Your task to perform on an android device: turn pop-ups off in chrome Image 0: 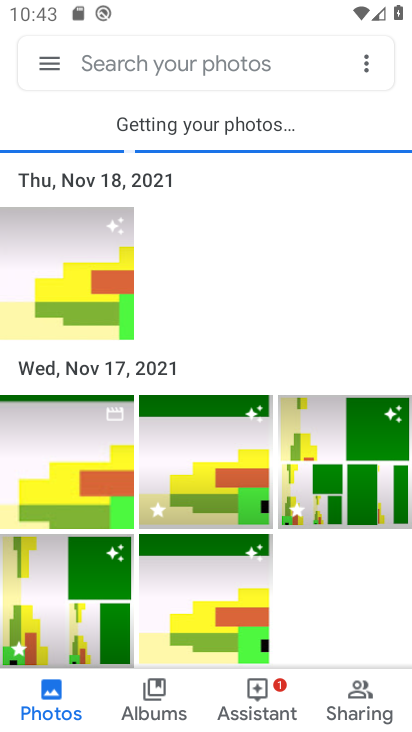
Step 0: press home button
Your task to perform on an android device: turn pop-ups off in chrome Image 1: 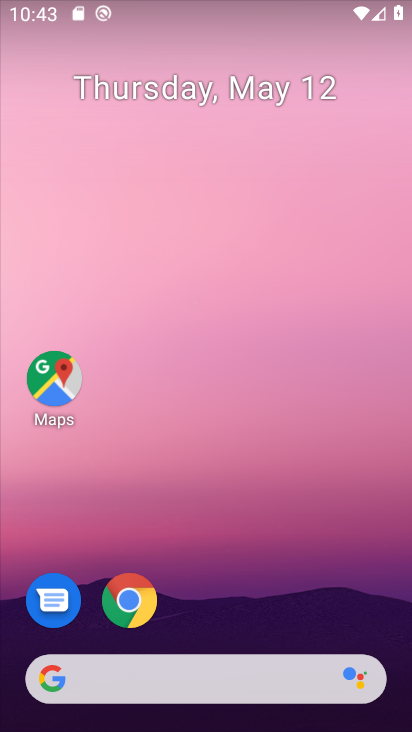
Step 1: click (135, 608)
Your task to perform on an android device: turn pop-ups off in chrome Image 2: 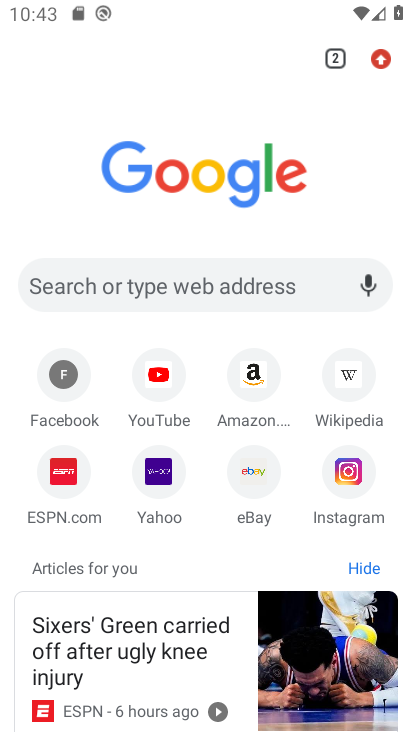
Step 2: drag from (372, 186) to (367, 279)
Your task to perform on an android device: turn pop-ups off in chrome Image 3: 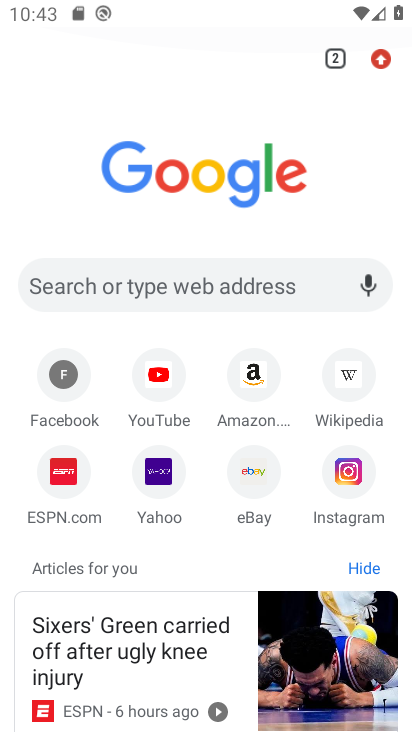
Step 3: drag from (367, 282) to (347, 386)
Your task to perform on an android device: turn pop-ups off in chrome Image 4: 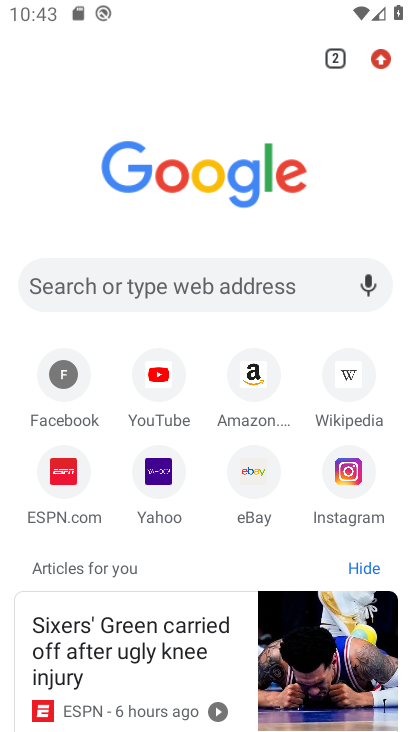
Step 4: click (384, 66)
Your task to perform on an android device: turn pop-ups off in chrome Image 5: 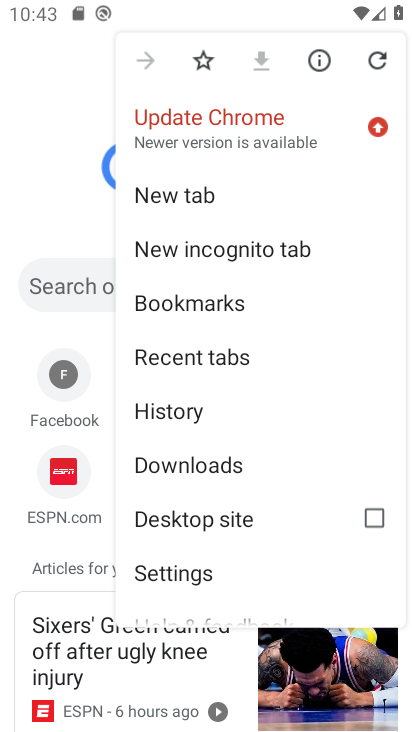
Step 5: drag from (251, 525) to (234, 167)
Your task to perform on an android device: turn pop-ups off in chrome Image 6: 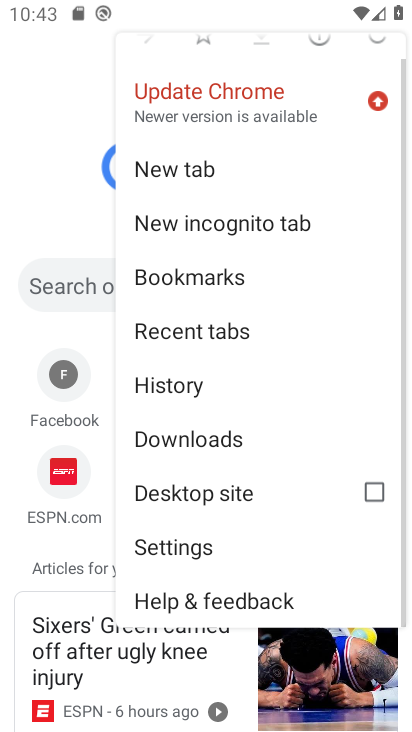
Step 6: click (187, 544)
Your task to perform on an android device: turn pop-ups off in chrome Image 7: 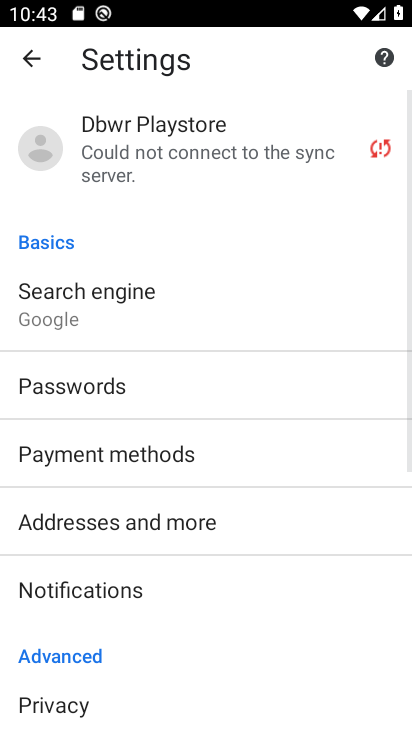
Step 7: drag from (162, 673) to (186, 260)
Your task to perform on an android device: turn pop-ups off in chrome Image 8: 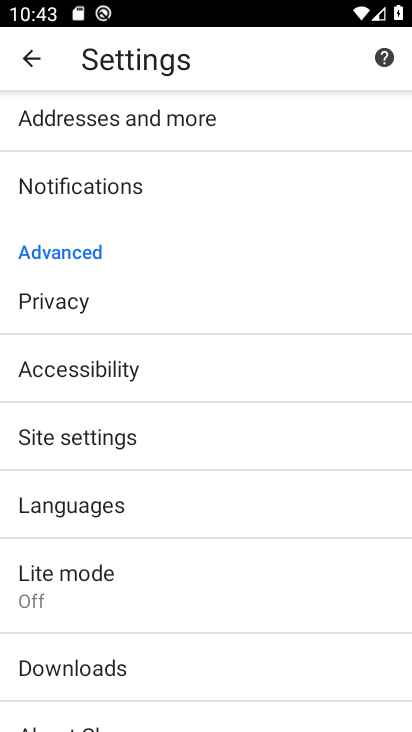
Step 8: click (78, 435)
Your task to perform on an android device: turn pop-ups off in chrome Image 9: 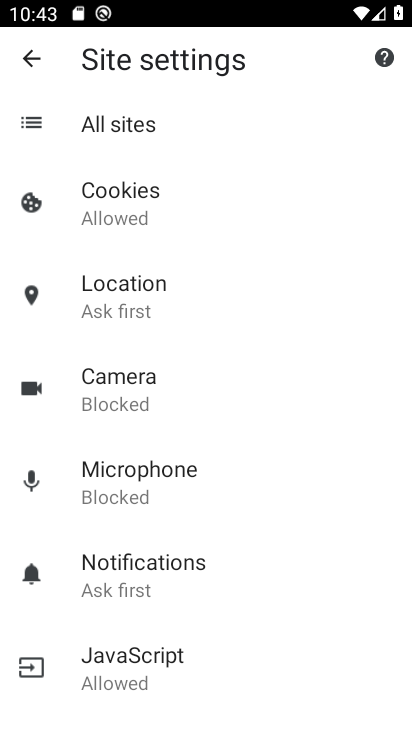
Step 9: drag from (142, 625) to (136, 298)
Your task to perform on an android device: turn pop-ups off in chrome Image 10: 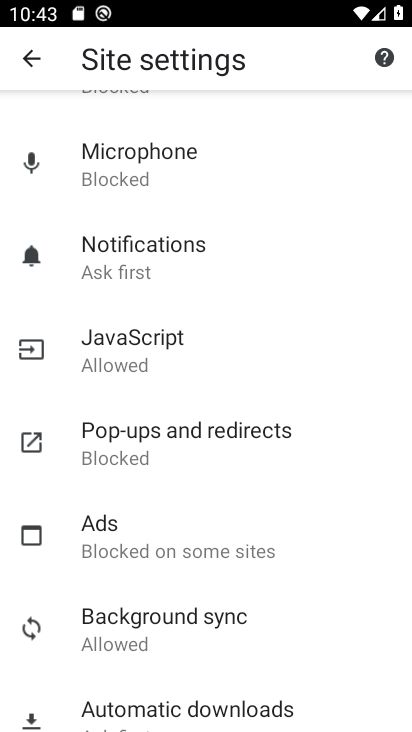
Step 10: click (121, 448)
Your task to perform on an android device: turn pop-ups off in chrome Image 11: 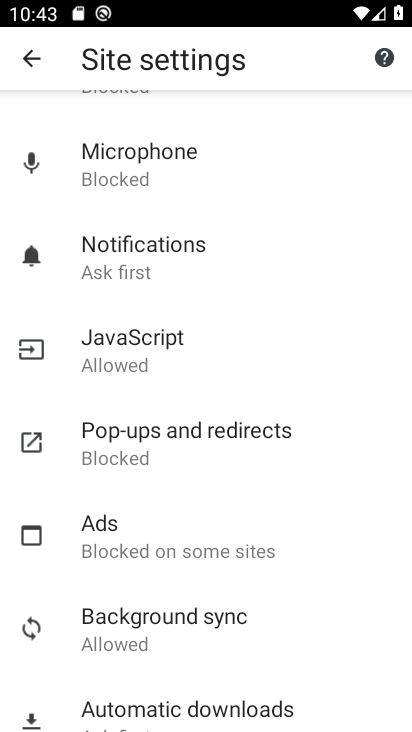
Step 11: click (121, 448)
Your task to perform on an android device: turn pop-ups off in chrome Image 12: 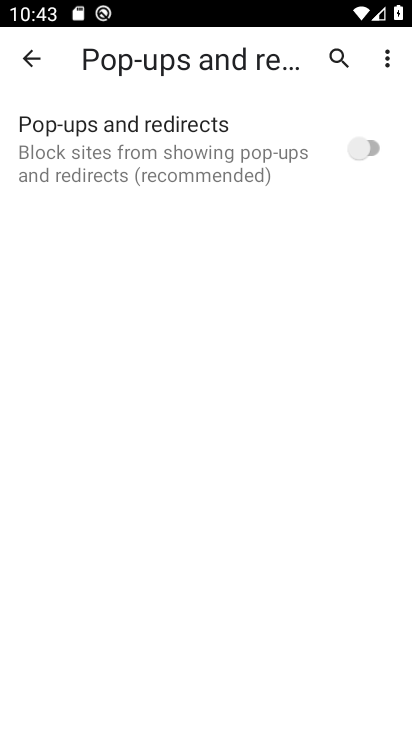
Step 12: task complete